Your task to perform on an android device: Open display settings Image 0: 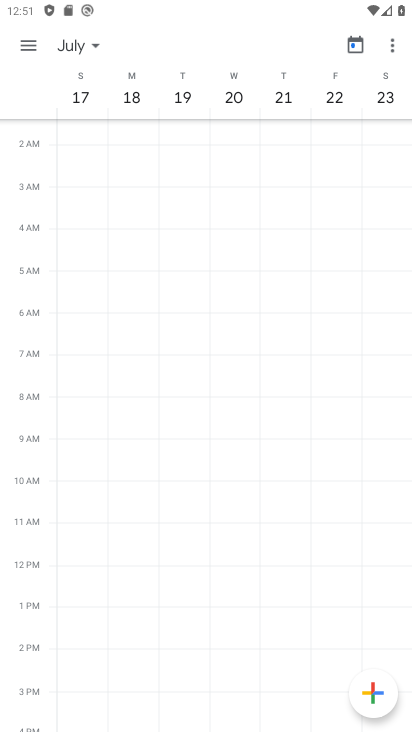
Step 0: press home button
Your task to perform on an android device: Open display settings Image 1: 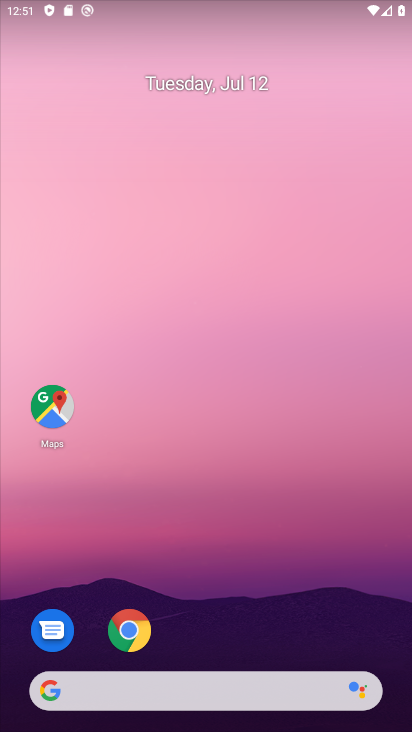
Step 1: drag from (355, 622) to (323, 168)
Your task to perform on an android device: Open display settings Image 2: 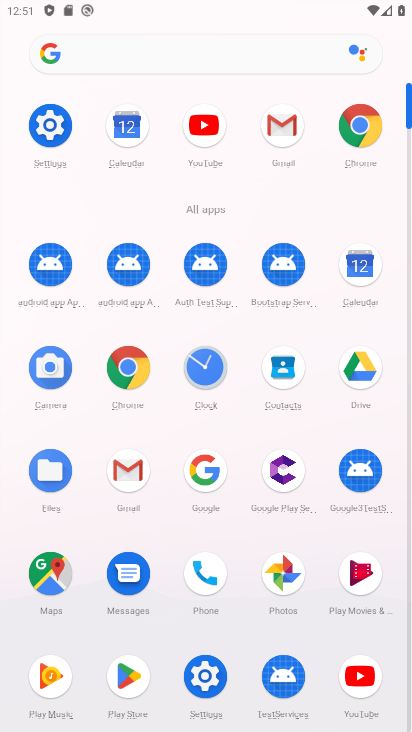
Step 2: click (204, 677)
Your task to perform on an android device: Open display settings Image 3: 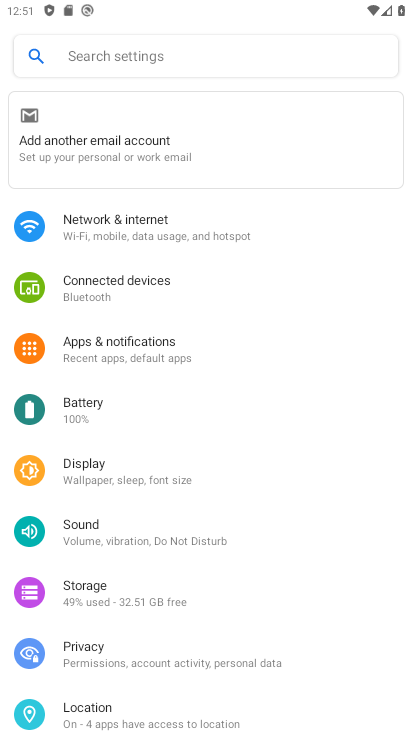
Step 3: click (104, 461)
Your task to perform on an android device: Open display settings Image 4: 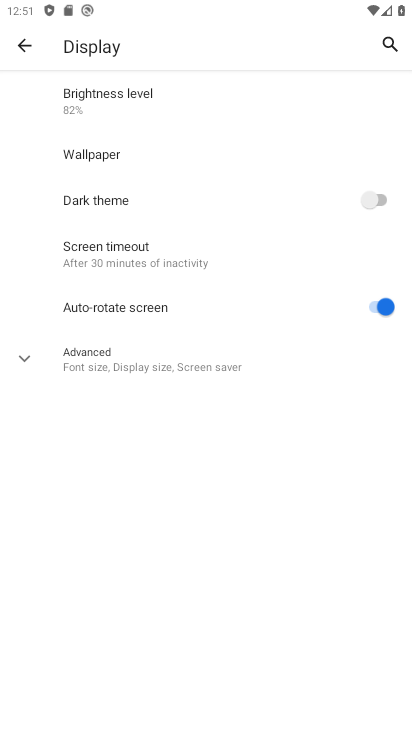
Step 4: click (24, 356)
Your task to perform on an android device: Open display settings Image 5: 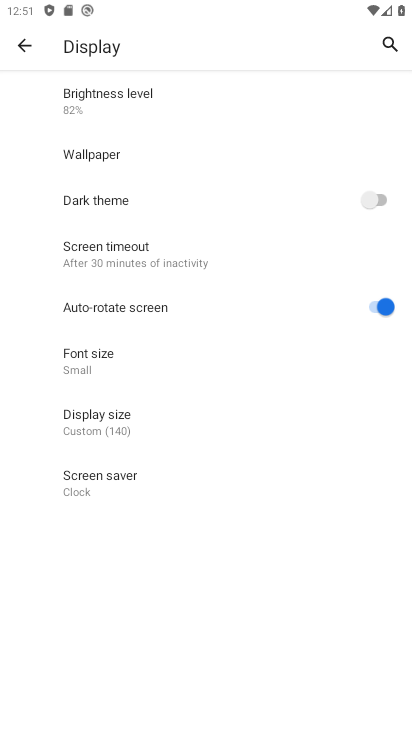
Step 5: task complete